Your task to perform on an android device: turn off sleep mode Image 0: 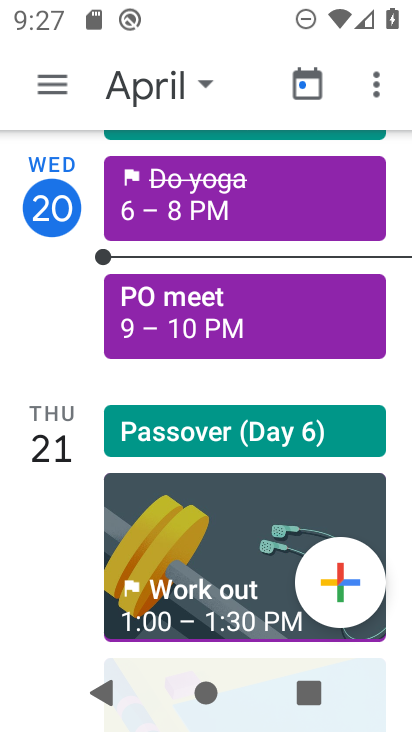
Step 0: press home button
Your task to perform on an android device: turn off sleep mode Image 1: 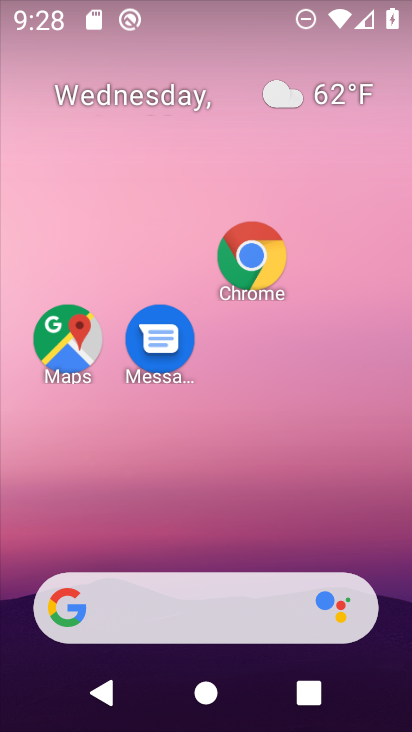
Step 1: drag from (200, 486) to (185, 125)
Your task to perform on an android device: turn off sleep mode Image 2: 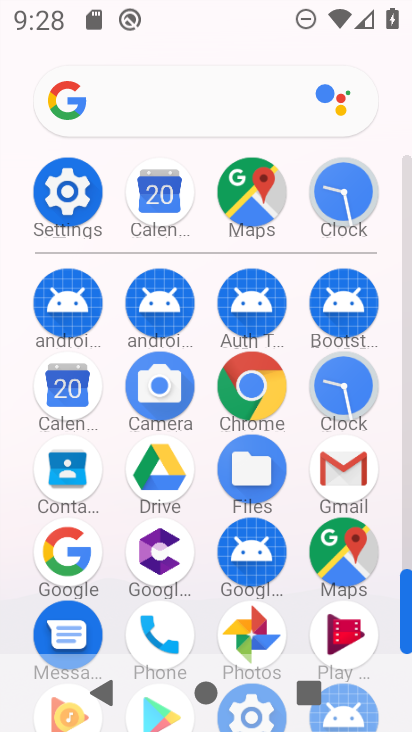
Step 2: click (60, 205)
Your task to perform on an android device: turn off sleep mode Image 3: 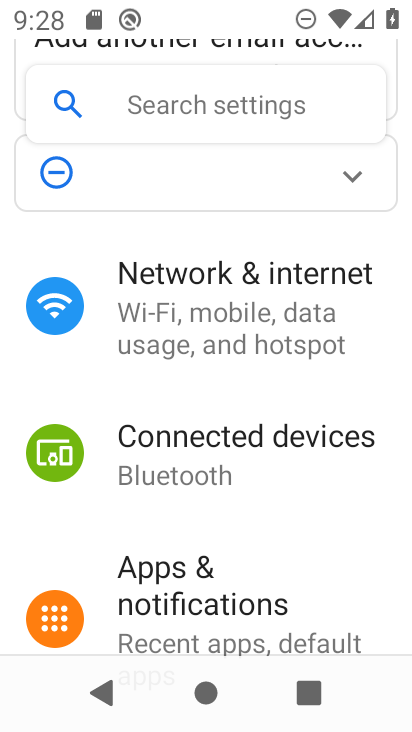
Step 3: drag from (262, 551) to (298, 106)
Your task to perform on an android device: turn off sleep mode Image 4: 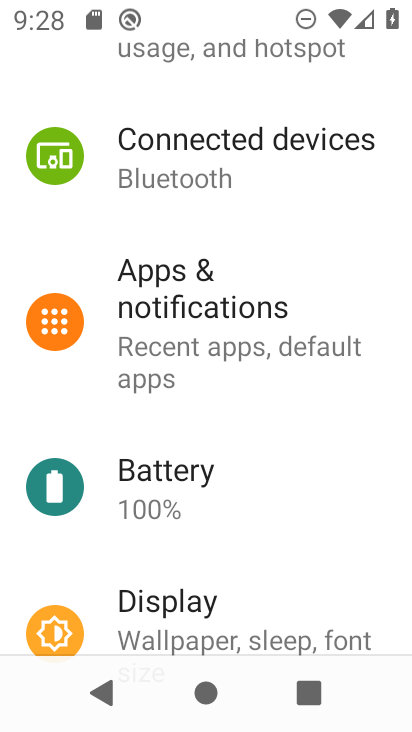
Step 4: drag from (286, 562) to (276, 428)
Your task to perform on an android device: turn off sleep mode Image 5: 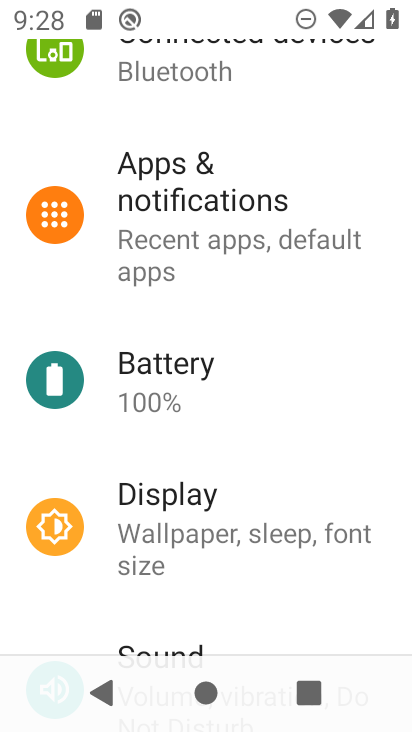
Step 5: click (189, 509)
Your task to perform on an android device: turn off sleep mode Image 6: 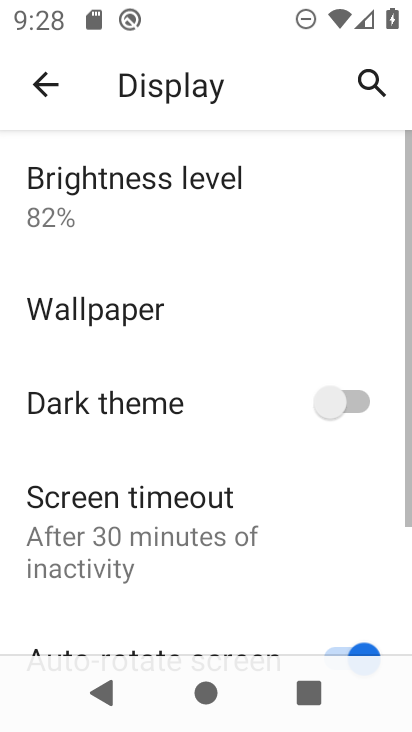
Step 6: click (235, 529)
Your task to perform on an android device: turn off sleep mode Image 7: 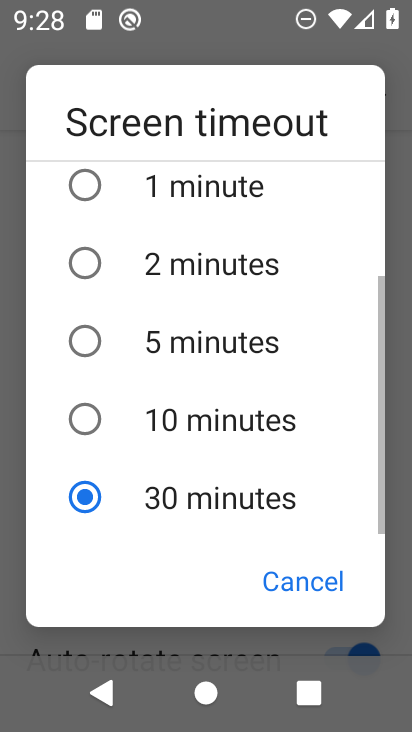
Step 7: task complete